Your task to perform on an android device: Open Reddit.com Image 0: 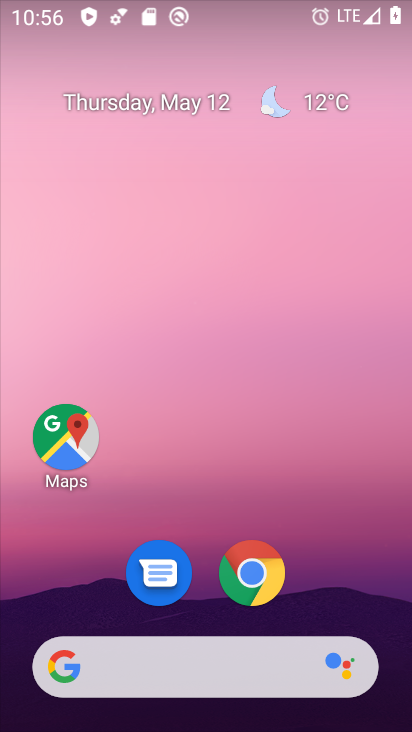
Step 0: click (243, 660)
Your task to perform on an android device: Open Reddit.com Image 1: 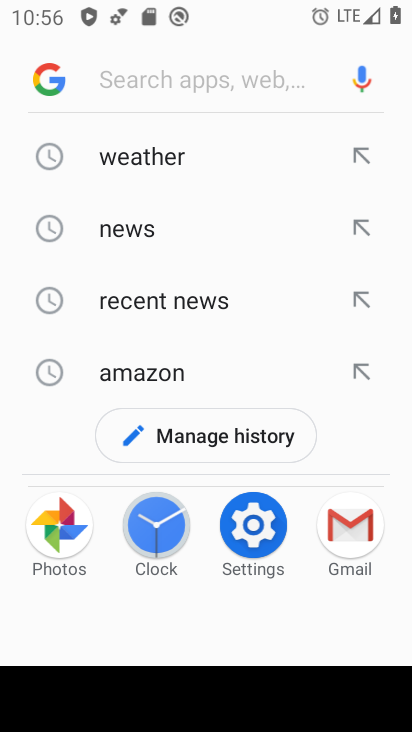
Step 1: type "reddit.com"
Your task to perform on an android device: Open Reddit.com Image 2: 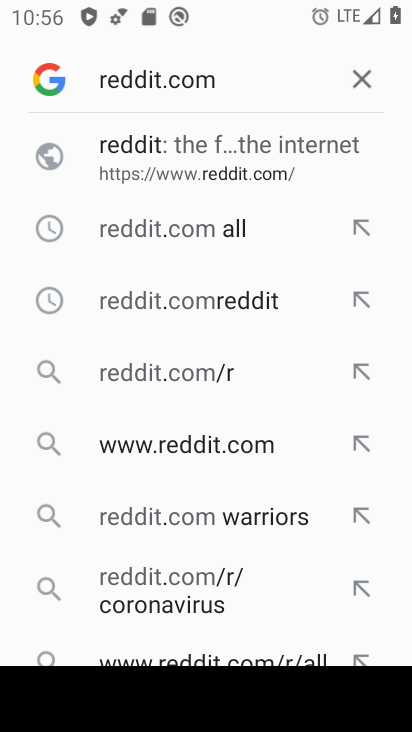
Step 2: click (207, 140)
Your task to perform on an android device: Open Reddit.com Image 3: 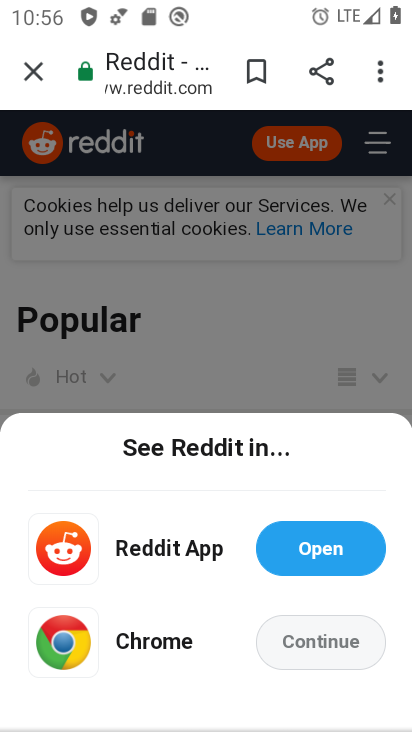
Step 3: task complete